Your task to perform on an android device: choose inbox layout in the gmail app Image 0: 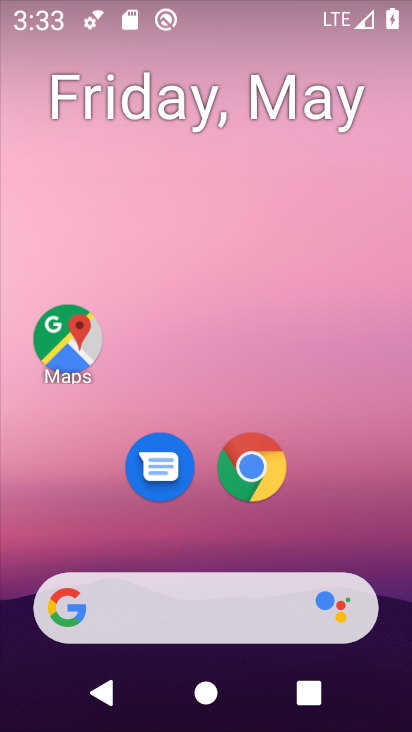
Step 0: drag from (329, 460) to (205, 2)
Your task to perform on an android device: choose inbox layout in the gmail app Image 1: 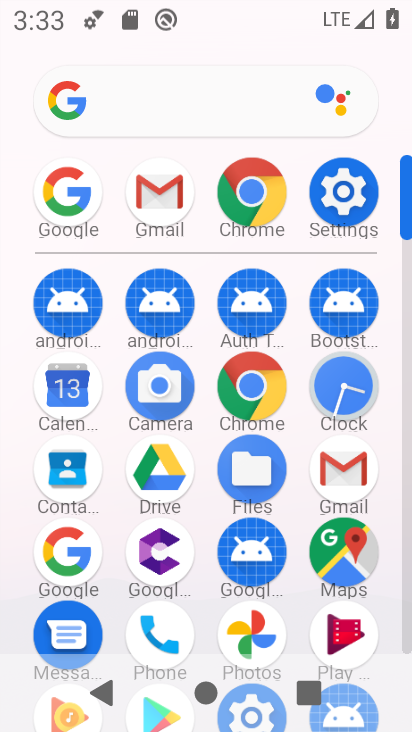
Step 1: click (350, 468)
Your task to perform on an android device: choose inbox layout in the gmail app Image 2: 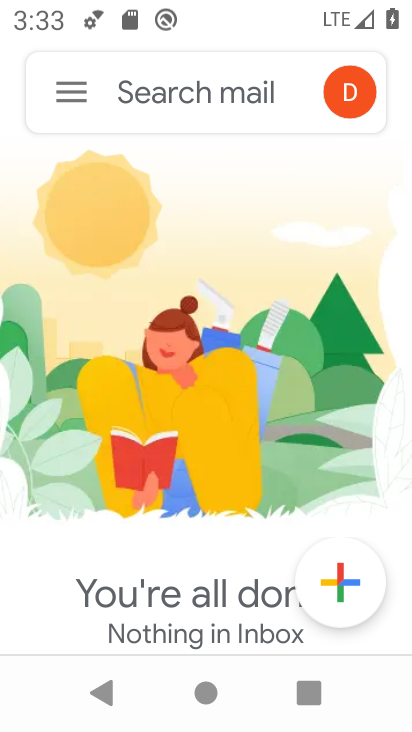
Step 2: click (73, 95)
Your task to perform on an android device: choose inbox layout in the gmail app Image 3: 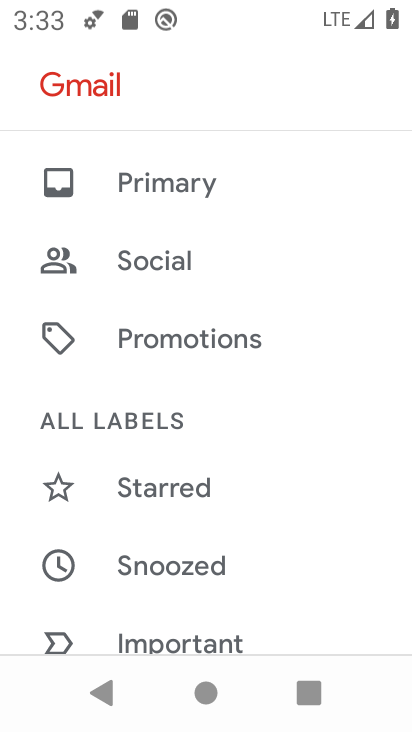
Step 3: drag from (277, 581) to (233, 160)
Your task to perform on an android device: choose inbox layout in the gmail app Image 4: 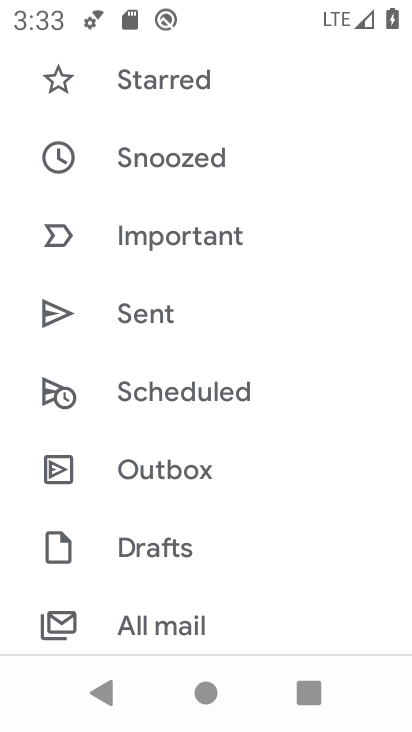
Step 4: drag from (231, 551) to (229, 155)
Your task to perform on an android device: choose inbox layout in the gmail app Image 5: 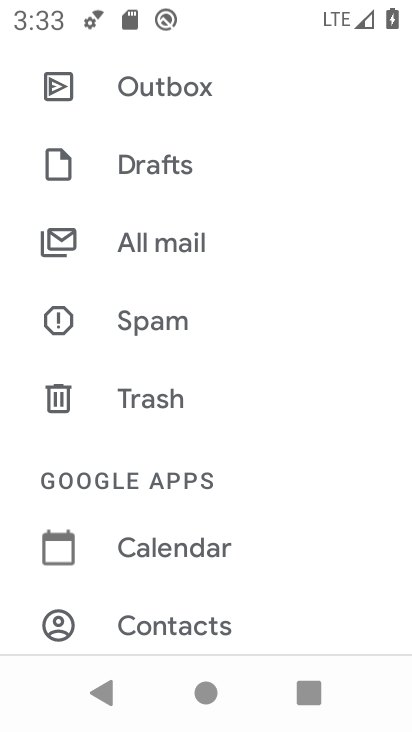
Step 5: drag from (234, 577) to (221, 168)
Your task to perform on an android device: choose inbox layout in the gmail app Image 6: 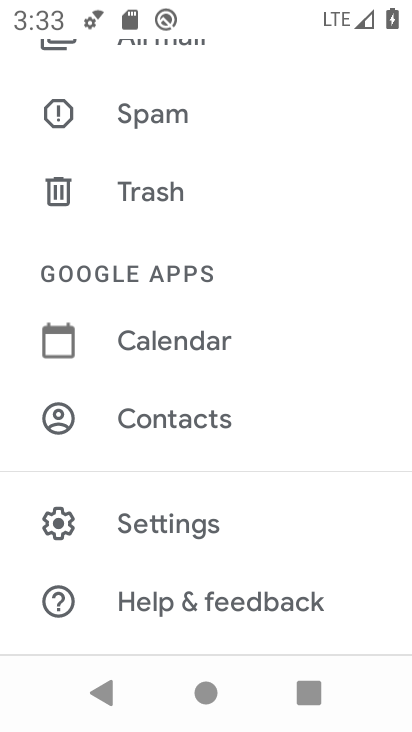
Step 6: click (194, 512)
Your task to perform on an android device: choose inbox layout in the gmail app Image 7: 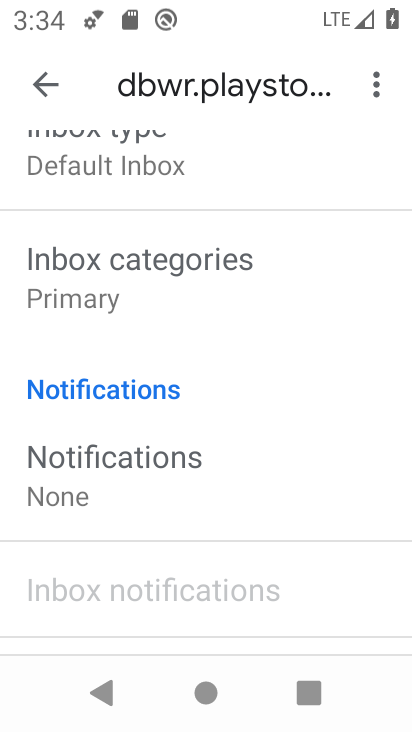
Step 7: drag from (166, 284) to (165, 514)
Your task to perform on an android device: choose inbox layout in the gmail app Image 8: 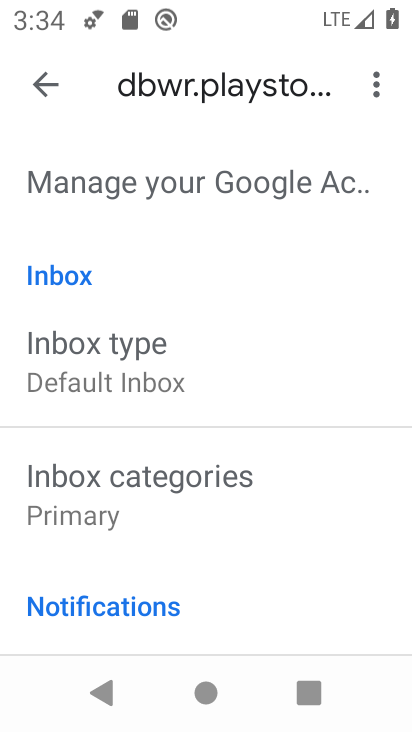
Step 8: click (79, 368)
Your task to perform on an android device: choose inbox layout in the gmail app Image 9: 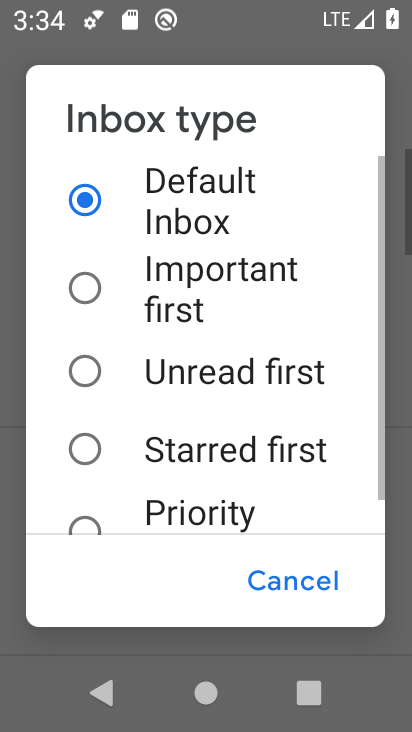
Step 9: click (167, 291)
Your task to perform on an android device: choose inbox layout in the gmail app Image 10: 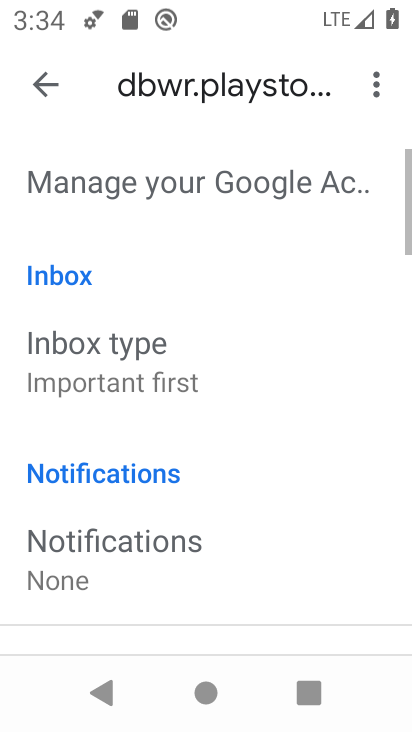
Step 10: task complete